Your task to perform on an android device: Go to Amazon Image 0: 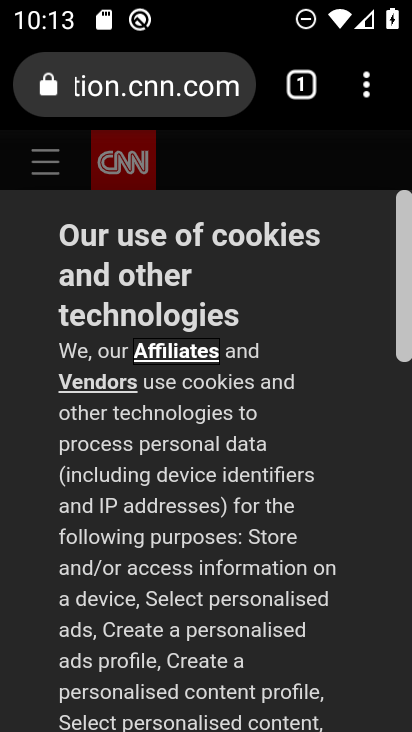
Step 0: press back button
Your task to perform on an android device: Go to Amazon Image 1: 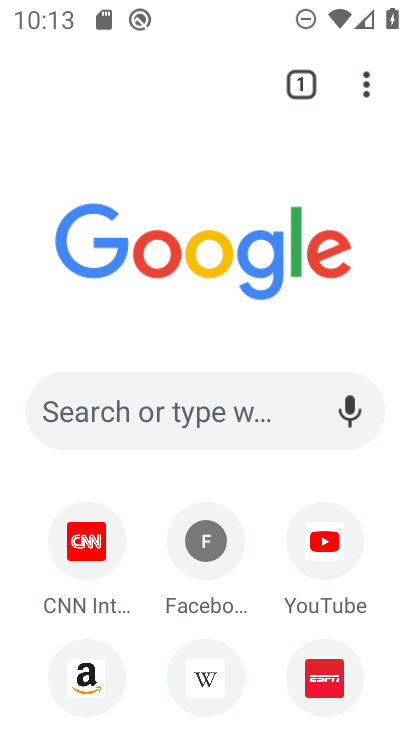
Step 1: click (98, 677)
Your task to perform on an android device: Go to Amazon Image 2: 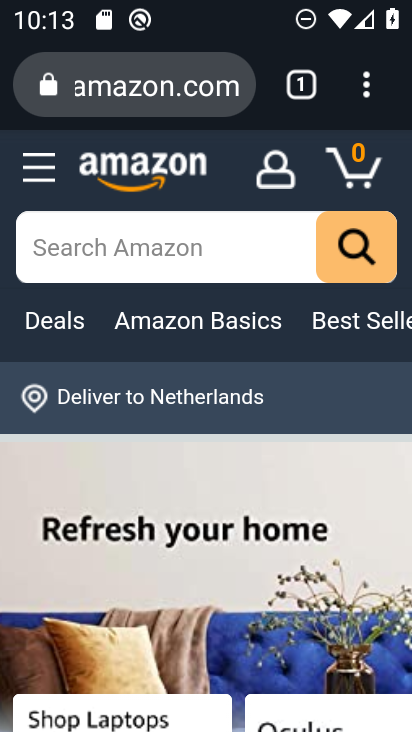
Step 2: task complete